Your task to perform on an android device: change the upload size in google photos Image 0: 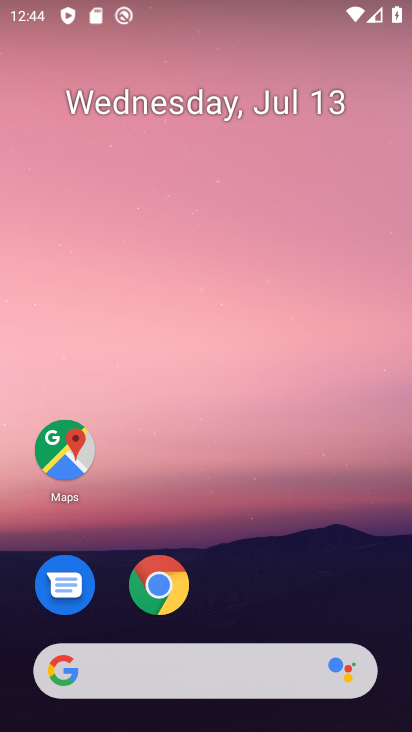
Step 0: drag from (166, 662) to (257, 85)
Your task to perform on an android device: change the upload size in google photos Image 1: 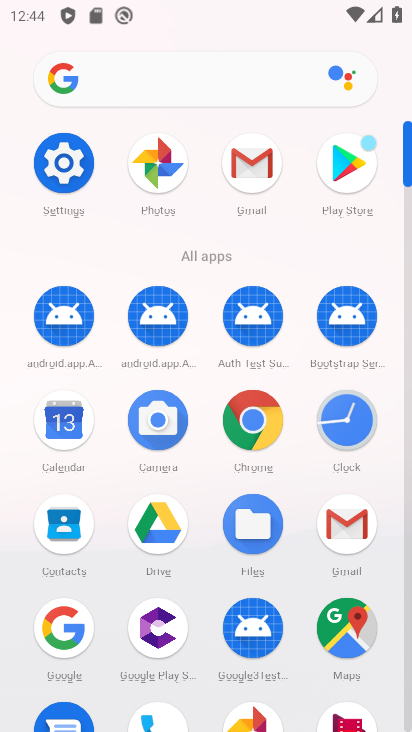
Step 1: click (145, 179)
Your task to perform on an android device: change the upload size in google photos Image 2: 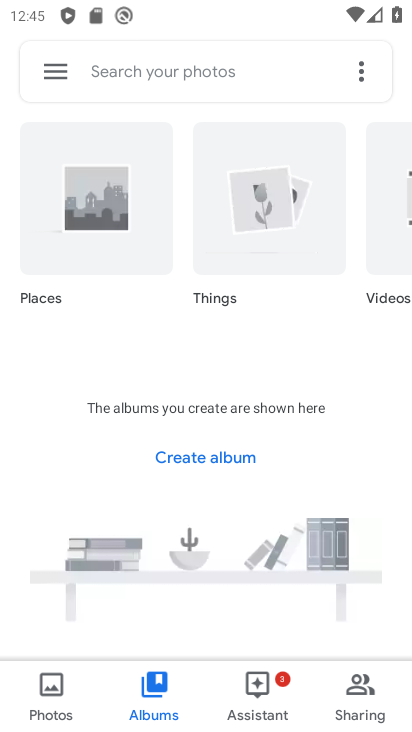
Step 2: click (59, 66)
Your task to perform on an android device: change the upload size in google photos Image 3: 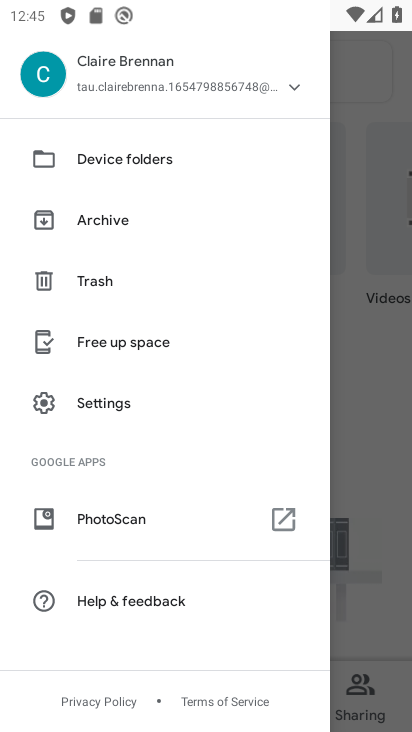
Step 3: click (111, 393)
Your task to perform on an android device: change the upload size in google photos Image 4: 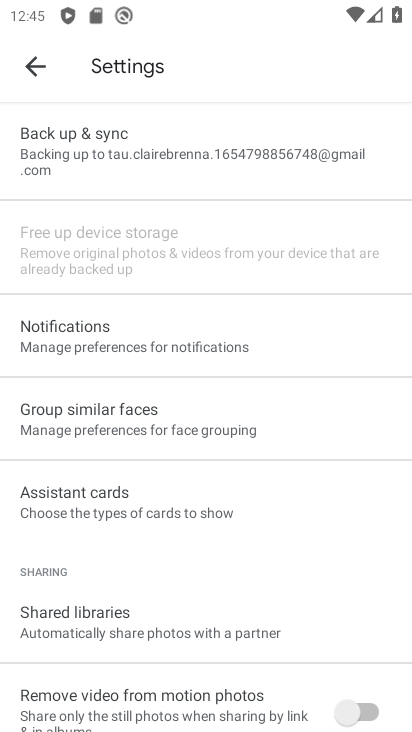
Step 4: click (189, 164)
Your task to perform on an android device: change the upload size in google photos Image 5: 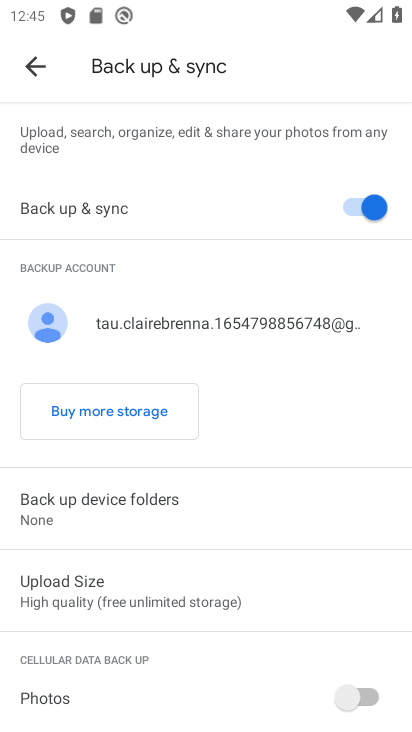
Step 5: click (128, 607)
Your task to perform on an android device: change the upload size in google photos Image 6: 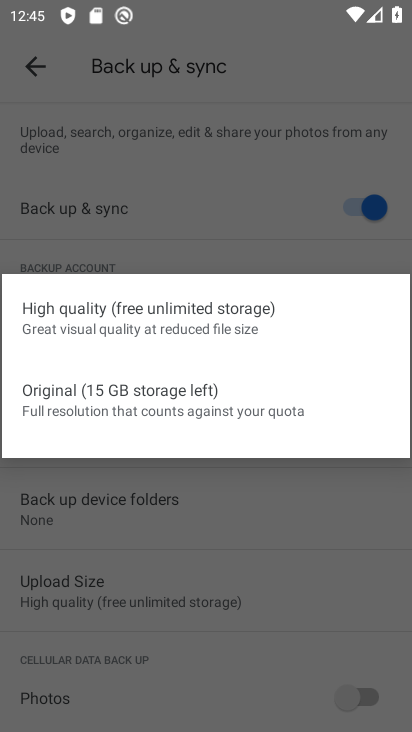
Step 6: click (130, 395)
Your task to perform on an android device: change the upload size in google photos Image 7: 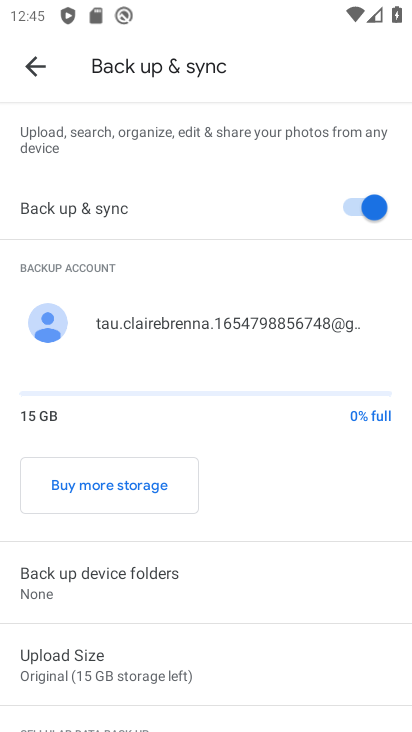
Step 7: task complete